Your task to perform on an android device: Go to display settings Image 0: 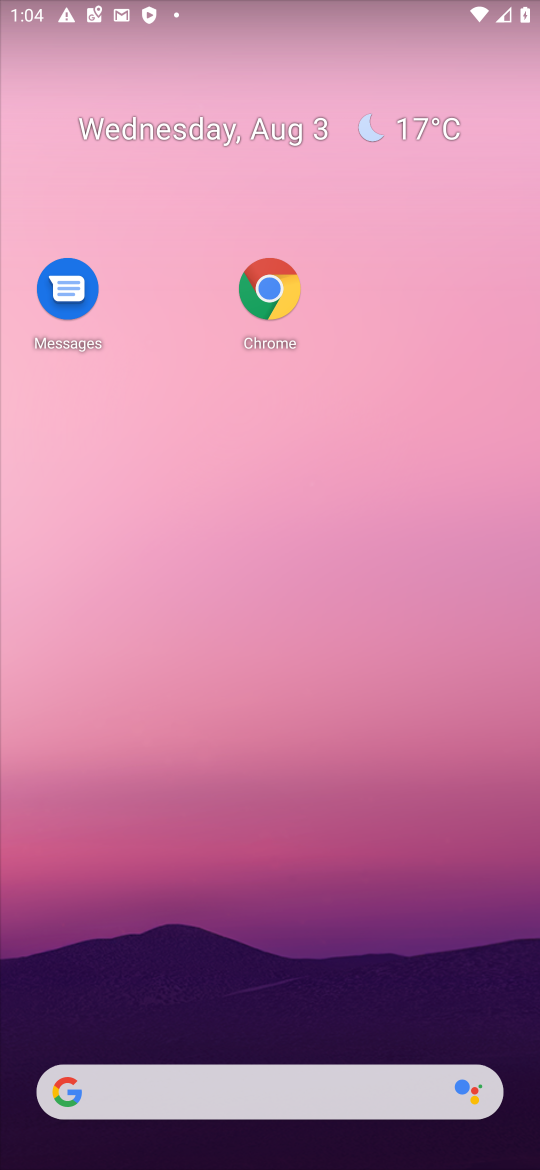
Step 0: drag from (346, 1036) to (318, 156)
Your task to perform on an android device: Go to display settings Image 1: 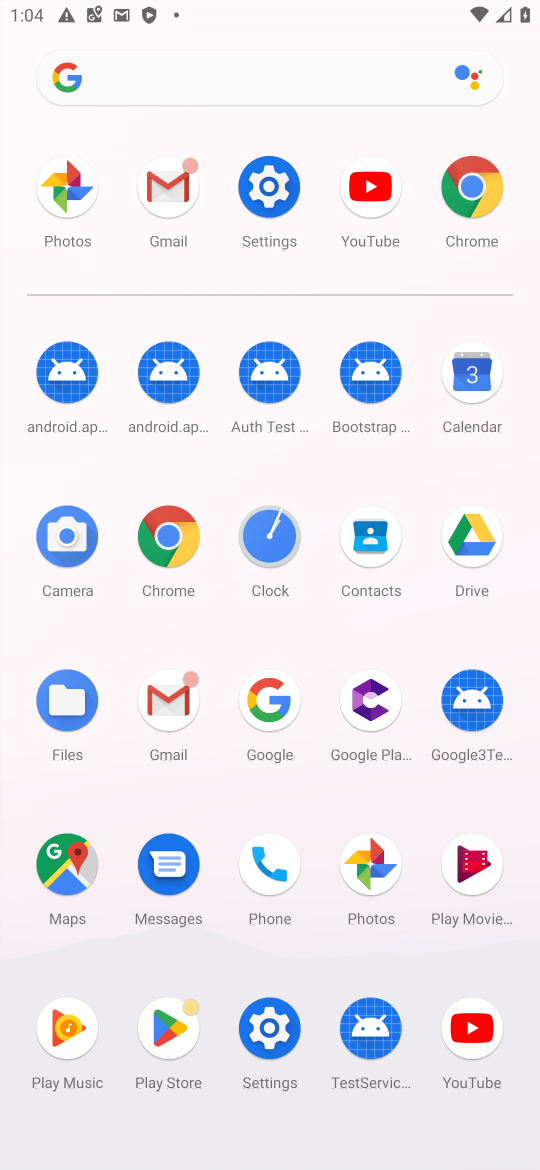
Step 1: click (284, 205)
Your task to perform on an android device: Go to display settings Image 2: 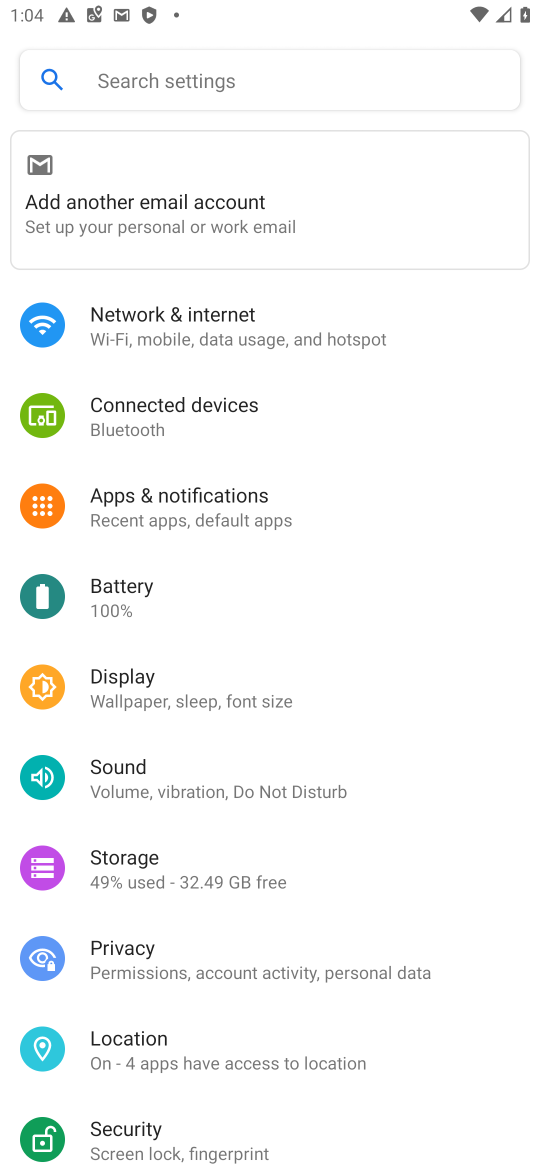
Step 2: click (263, 716)
Your task to perform on an android device: Go to display settings Image 3: 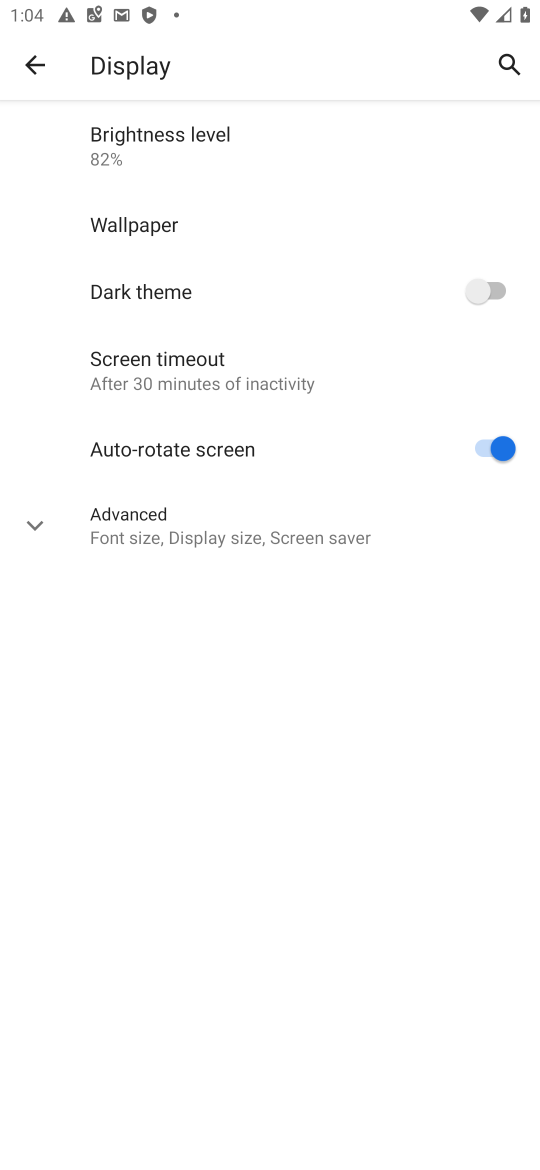
Step 3: task complete